Your task to perform on an android device: Open calendar and show me the second week of next month Image 0: 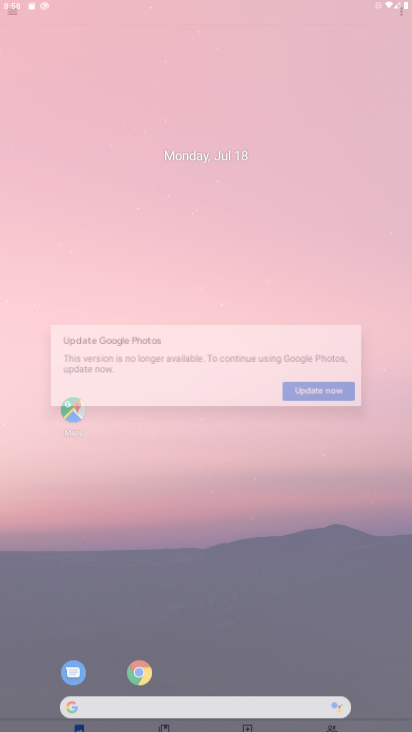
Step 0: press home button
Your task to perform on an android device: Open calendar and show me the second week of next month Image 1: 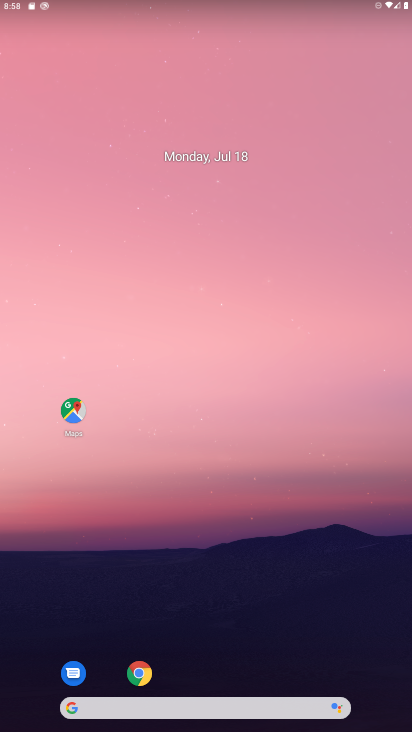
Step 1: drag from (224, 672) to (224, 185)
Your task to perform on an android device: Open calendar and show me the second week of next month Image 2: 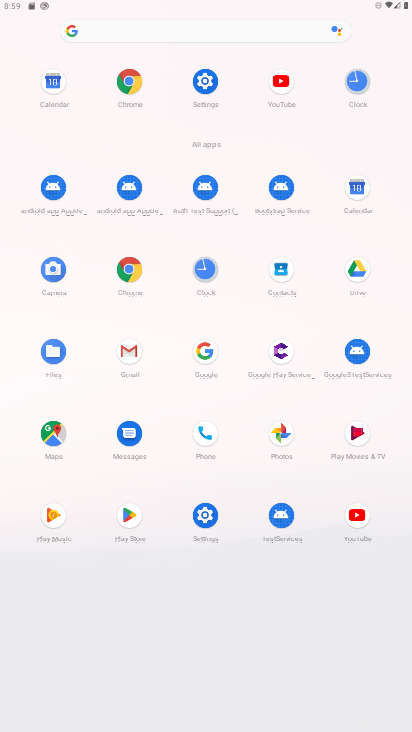
Step 2: click (354, 192)
Your task to perform on an android device: Open calendar and show me the second week of next month Image 3: 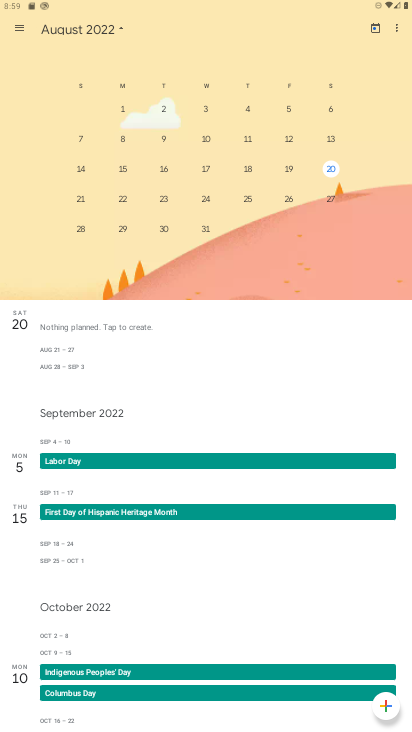
Step 3: click (118, 143)
Your task to perform on an android device: Open calendar and show me the second week of next month Image 4: 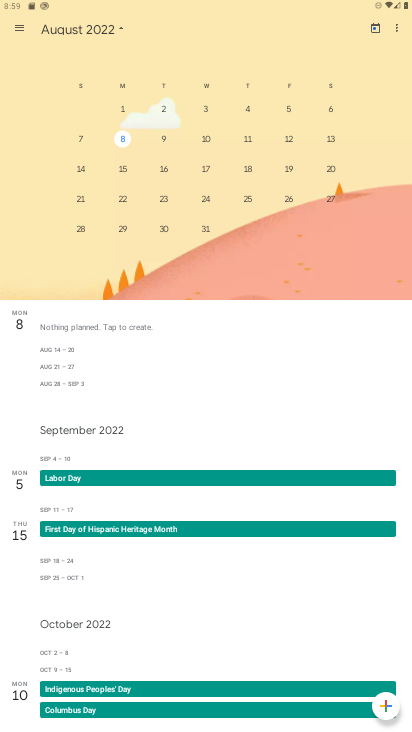
Step 4: click (166, 142)
Your task to perform on an android device: Open calendar and show me the second week of next month Image 5: 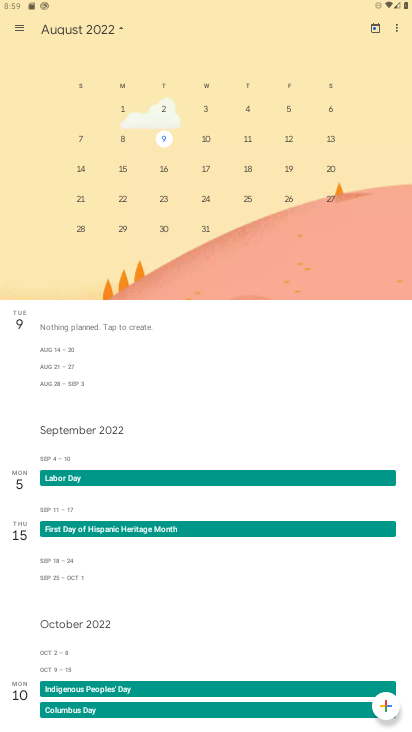
Step 5: click (205, 142)
Your task to perform on an android device: Open calendar and show me the second week of next month Image 6: 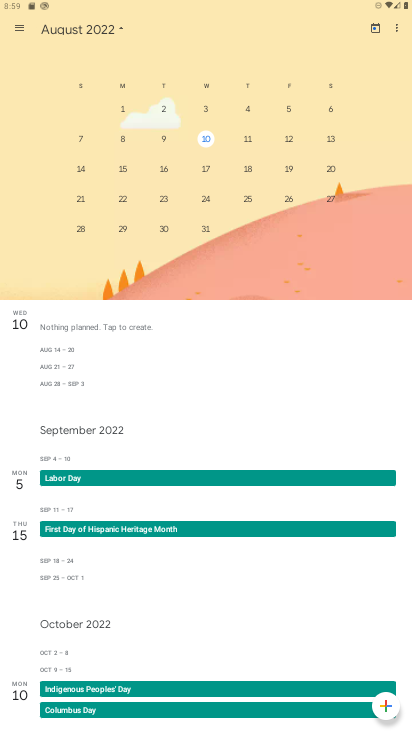
Step 6: click (245, 144)
Your task to perform on an android device: Open calendar and show me the second week of next month Image 7: 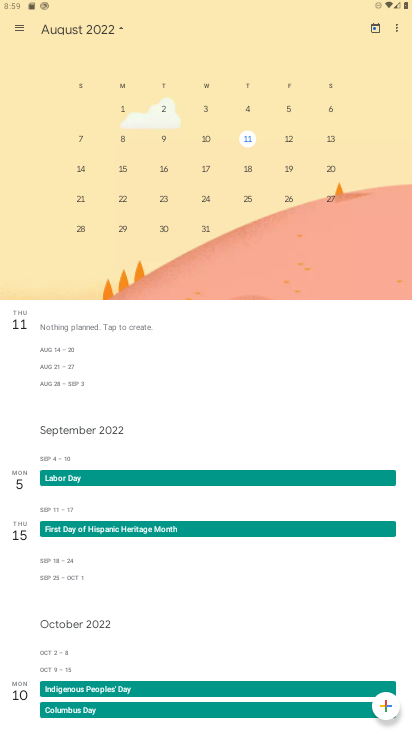
Step 7: click (302, 145)
Your task to perform on an android device: Open calendar and show me the second week of next month Image 8: 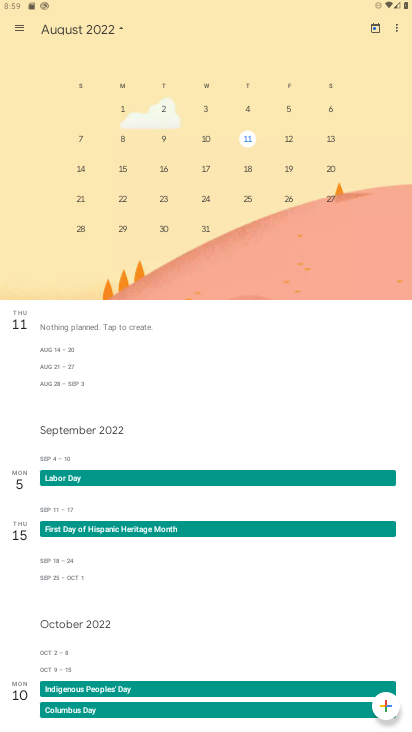
Step 8: click (287, 143)
Your task to perform on an android device: Open calendar and show me the second week of next month Image 9: 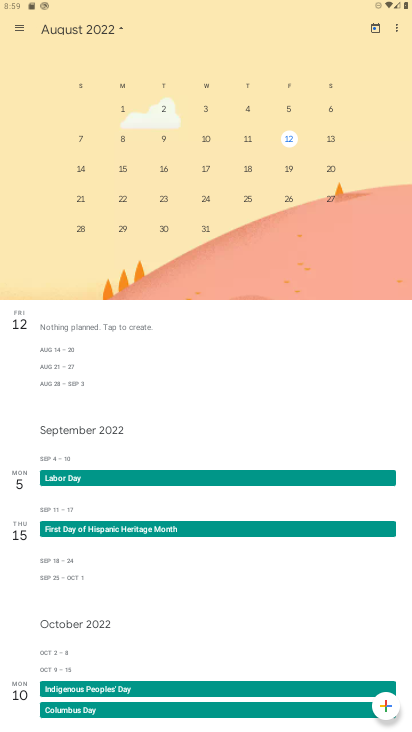
Step 9: click (325, 142)
Your task to perform on an android device: Open calendar and show me the second week of next month Image 10: 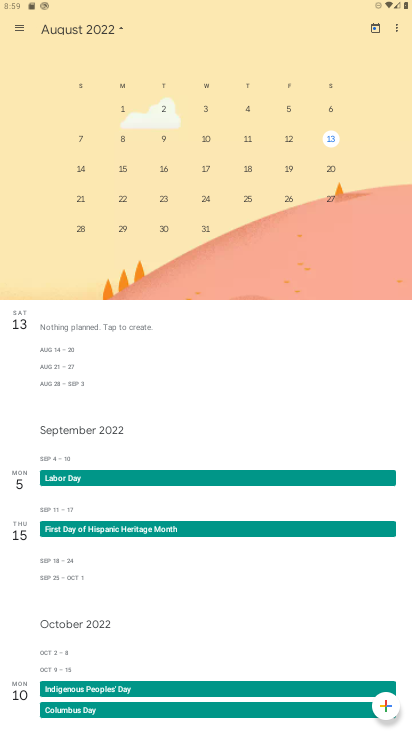
Step 10: click (80, 169)
Your task to perform on an android device: Open calendar and show me the second week of next month Image 11: 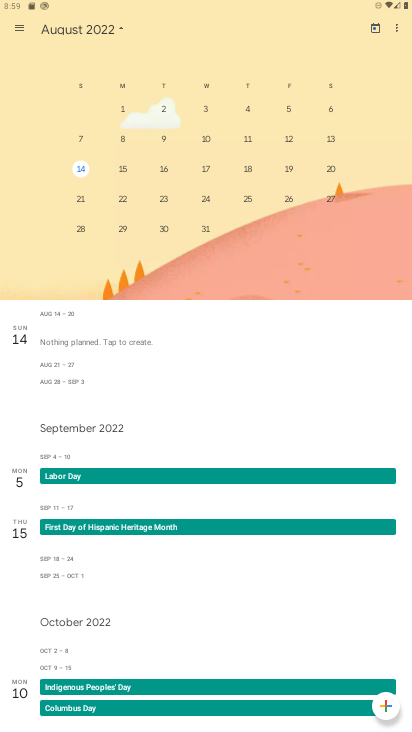
Step 11: task complete